Your task to perform on an android device: Open battery settings Image 0: 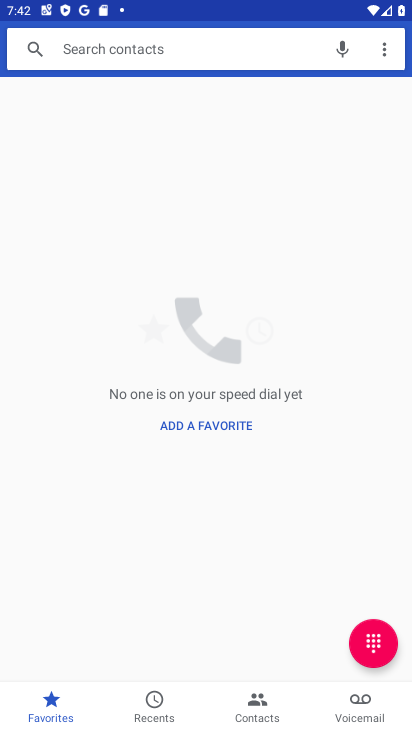
Step 0: press home button
Your task to perform on an android device: Open battery settings Image 1: 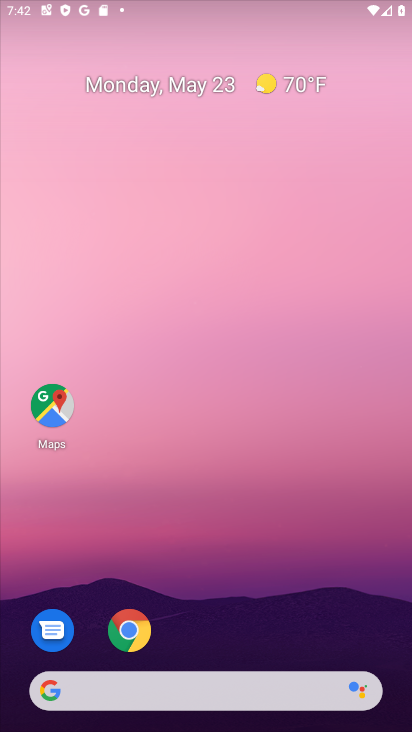
Step 1: drag from (328, 574) to (175, 153)
Your task to perform on an android device: Open battery settings Image 2: 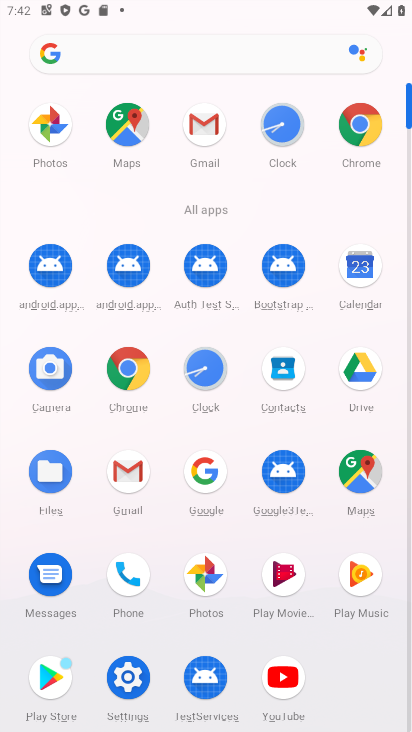
Step 2: click (136, 676)
Your task to perform on an android device: Open battery settings Image 3: 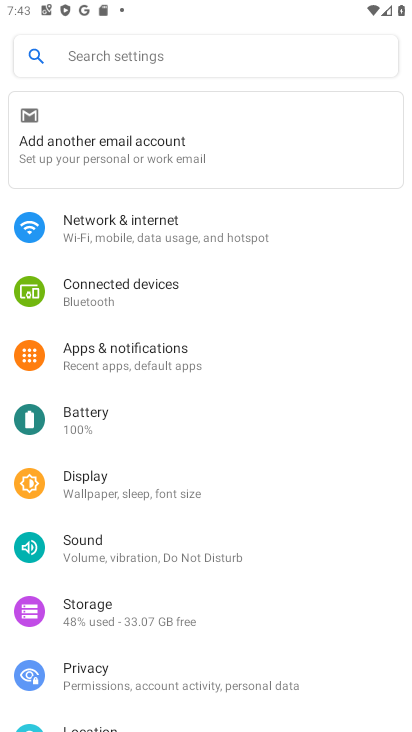
Step 3: click (94, 425)
Your task to perform on an android device: Open battery settings Image 4: 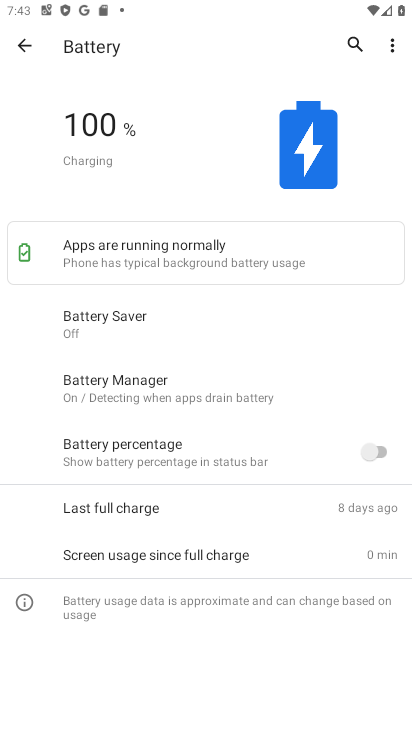
Step 4: task complete